Your task to perform on an android device: Open Reddit.com Image 0: 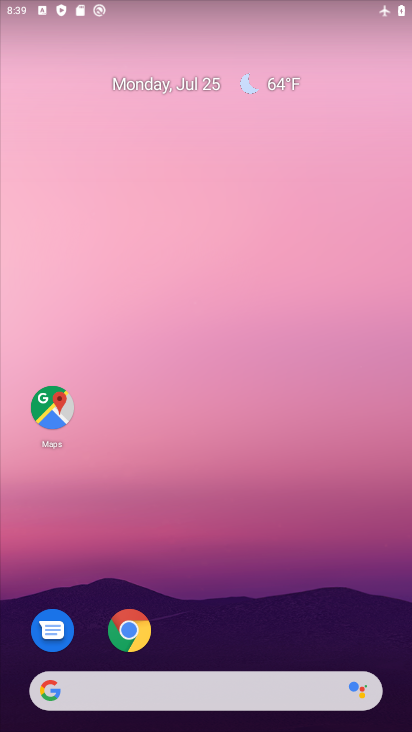
Step 0: click (128, 629)
Your task to perform on an android device: Open Reddit.com Image 1: 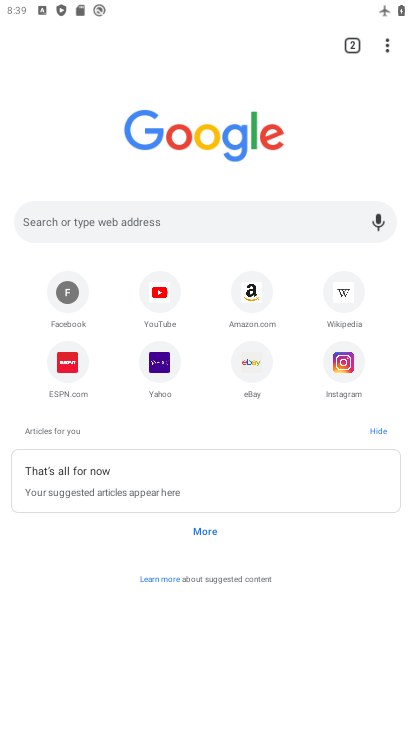
Step 1: click (110, 230)
Your task to perform on an android device: Open Reddit.com Image 2: 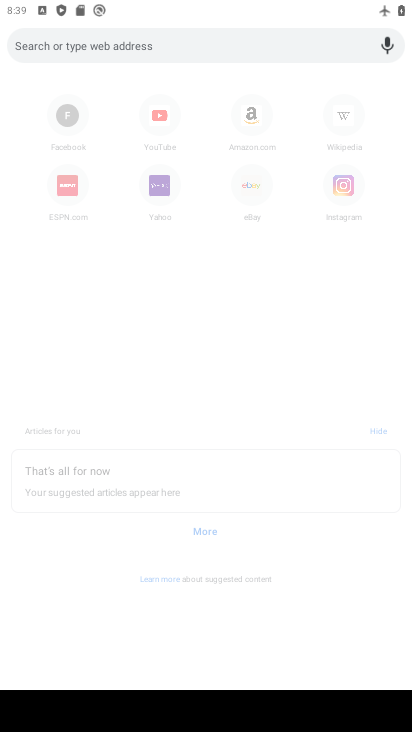
Step 2: type "rededit.com"
Your task to perform on an android device: Open Reddit.com Image 3: 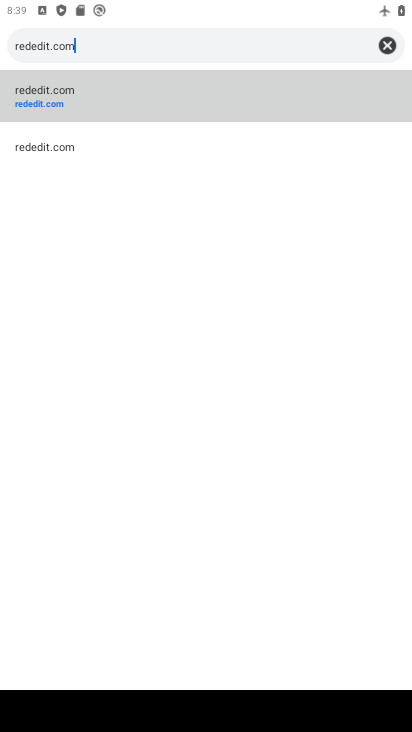
Step 3: click (30, 87)
Your task to perform on an android device: Open Reddit.com Image 4: 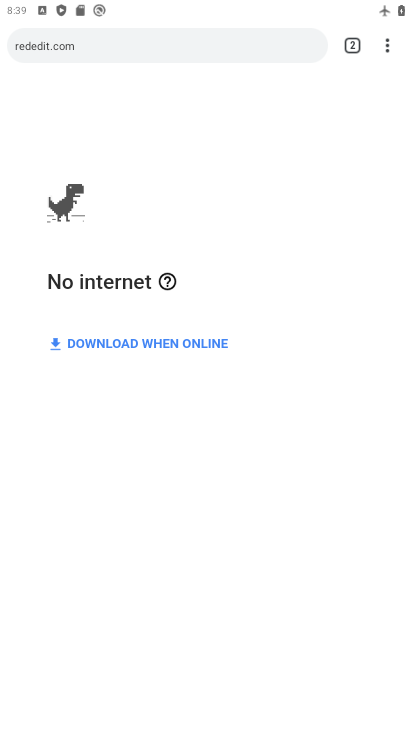
Step 4: task complete